Your task to perform on an android device: set the stopwatch Image 0: 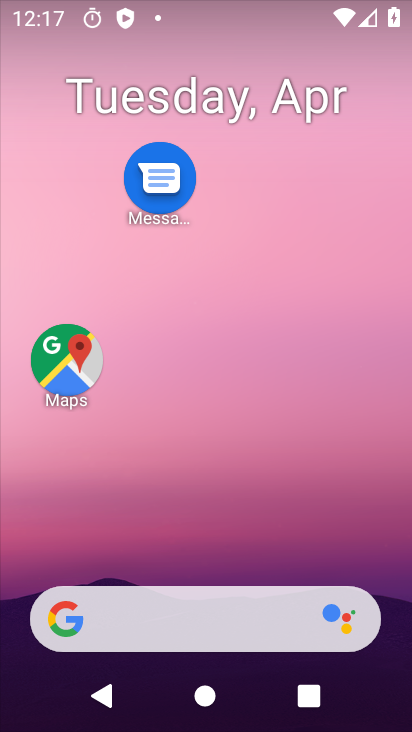
Step 0: drag from (207, 724) to (199, 87)
Your task to perform on an android device: set the stopwatch Image 1: 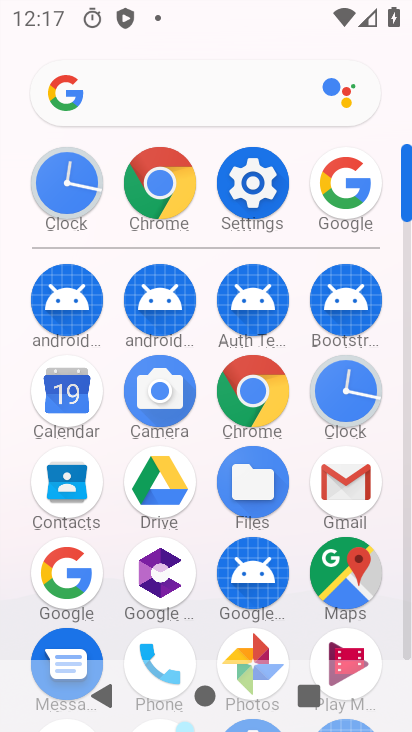
Step 1: click (329, 391)
Your task to perform on an android device: set the stopwatch Image 2: 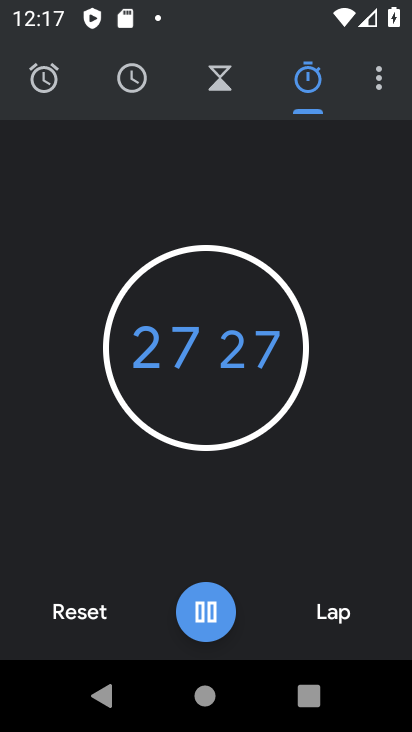
Step 2: type "676"
Your task to perform on an android device: set the stopwatch Image 3: 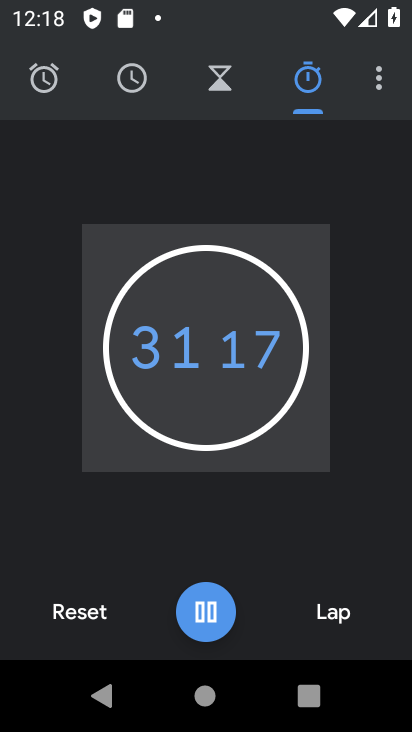
Step 3: task complete